Your task to perform on an android device: What's the weather going to be tomorrow? Image 0: 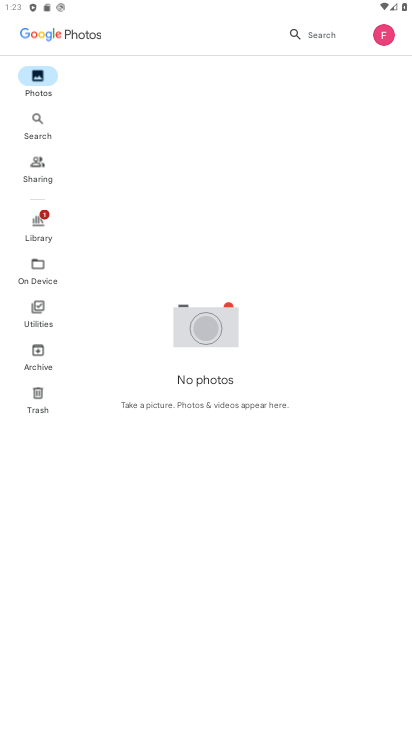
Step 0: press home button
Your task to perform on an android device: What's the weather going to be tomorrow? Image 1: 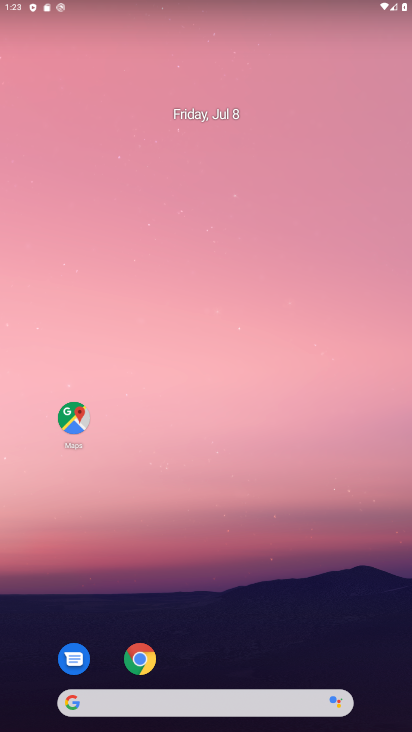
Step 1: drag from (224, 661) to (159, 221)
Your task to perform on an android device: What's the weather going to be tomorrow? Image 2: 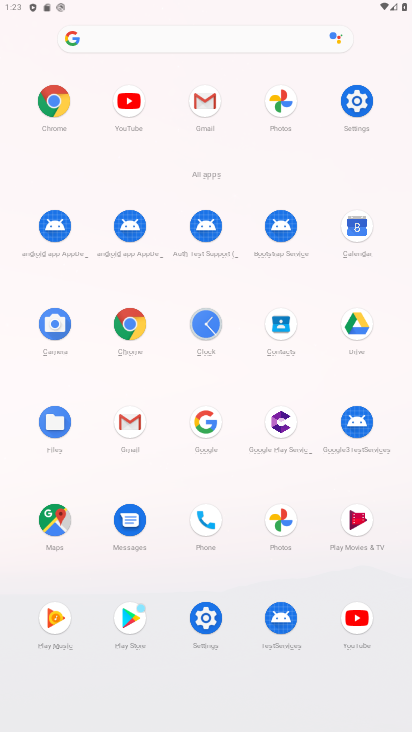
Step 2: click (205, 421)
Your task to perform on an android device: What's the weather going to be tomorrow? Image 3: 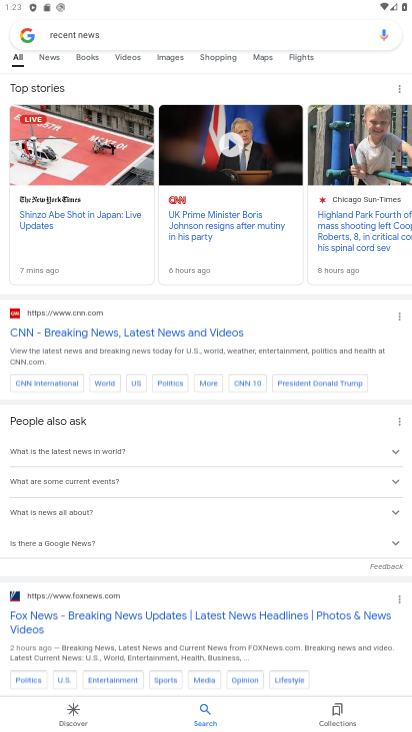
Step 3: click (189, 30)
Your task to perform on an android device: What's the weather going to be tomorrow? Image 4: 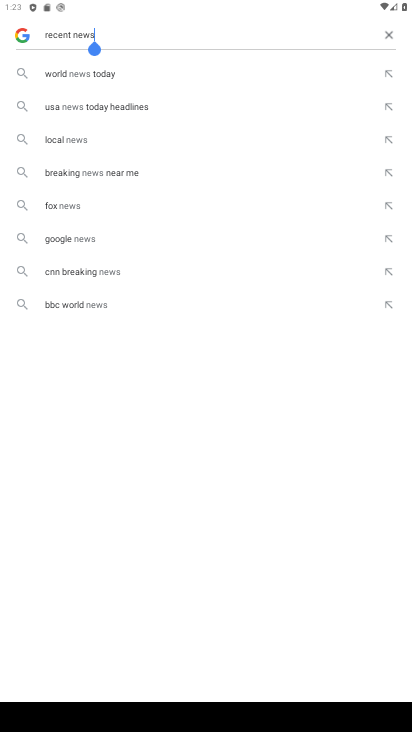
Step 4: click (389, 39)
Your task to perform on an android device: What's the weather going to be tomorrow? Image 5: 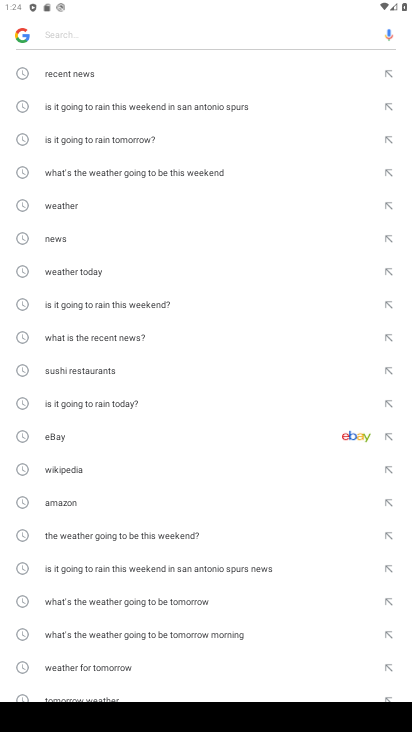
Step 5: type "What's the weather going to be  tomorrow?"
Your task to perform on an android device: What's the weather going to be tomorrow? Image 6: 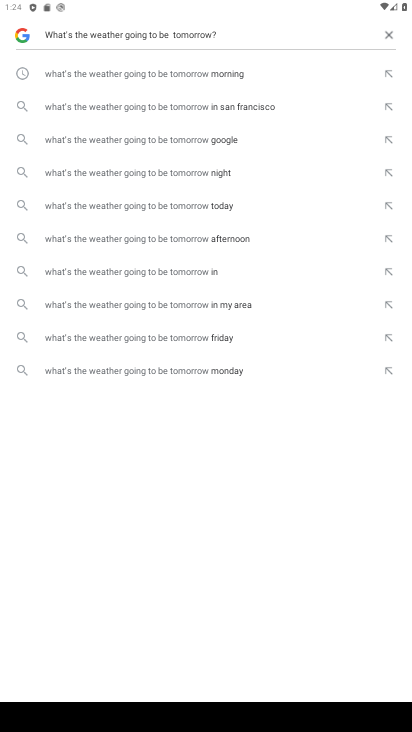
Step 6: click (145, 112)
Your task to perform on an android device: What's the weather going to be tomorrow? Image 7: 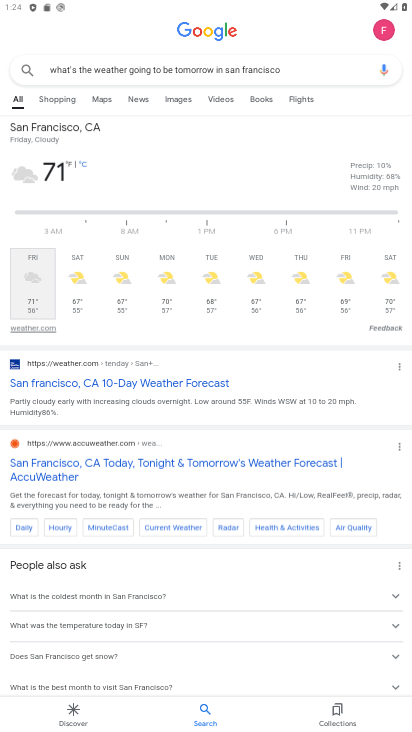
Step 7: task complete